Your task to perform on an android device: move an email to a new category in the gmail app Image 0: 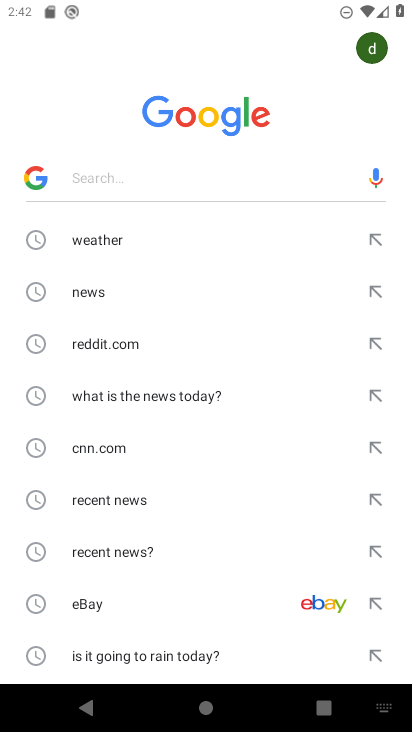
Step 0: press home button
Your task to perform on an android device: move an email to a new category in the gmail app Image 1: 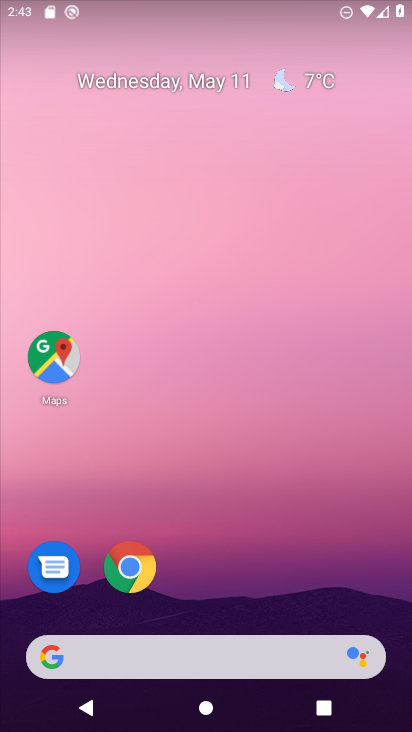
Step 1: drag from (224, 574) to (207, 285)
Your task to perform on an android device: move an email to a new category in the gmail app Image 2: 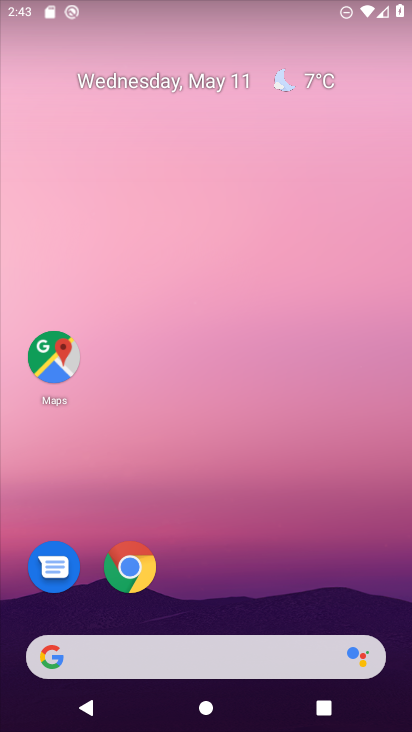
Step 2: drag from (355, 624) to (279, 234)
Your task to perform on an android device: move an email to a new category in the gmail app Image 3: 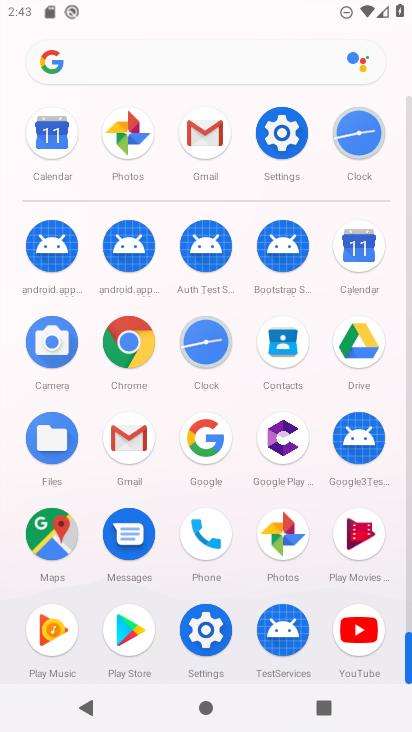
Step 3: click (135, 440)
Your task to perform on an android device: move an email to a new category in the gmail app Image 4: 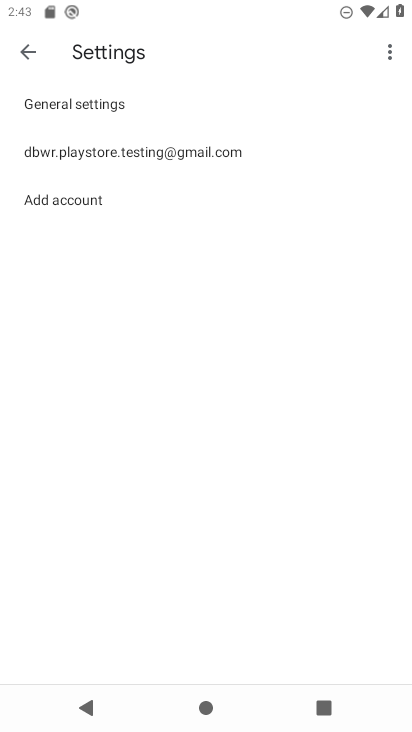
Step 4: click (97, 147)
Your task to perform on an android device: move an email to a new category in the gmail app Image 5: 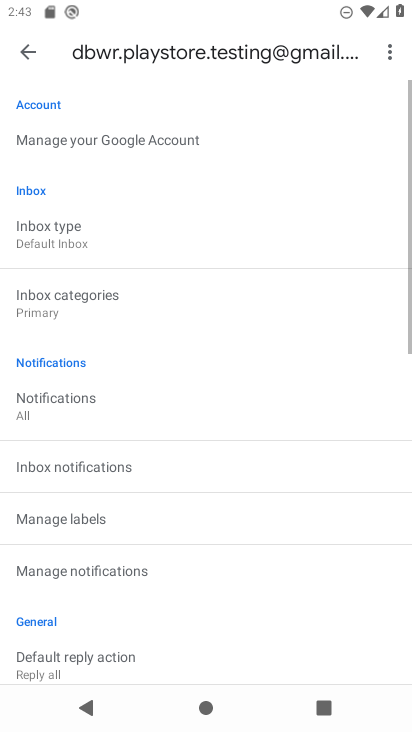
Step 5: click (37, 56)
Your task to perform on an android device: move an email to a new category in the gmail app Image 6: 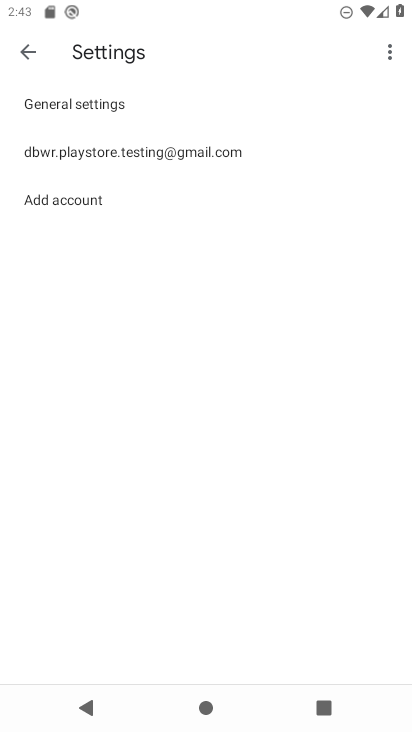
Step 6: click (37, 56)
Your task to perform on an android device: move an email to a new category in the gmail app Image 7: 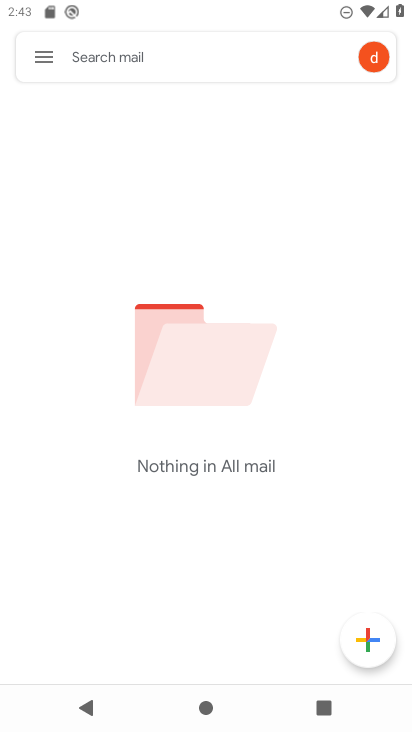
Step 7: task complete